Your task to perform on an android device: add a contact Image 0: 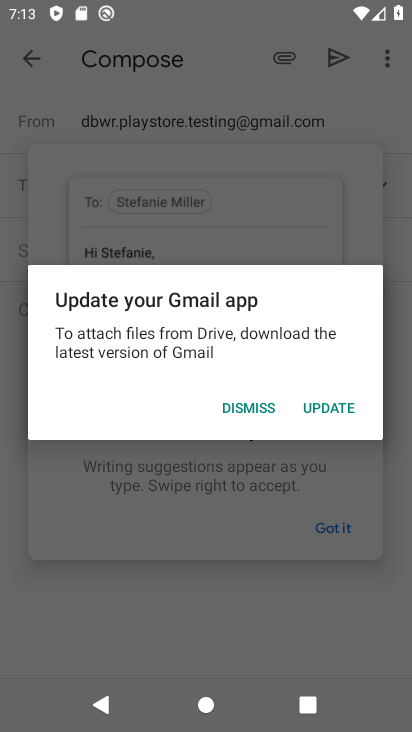
Step 0: press home button
Your task to perform on an android device: add a contact Image 1: 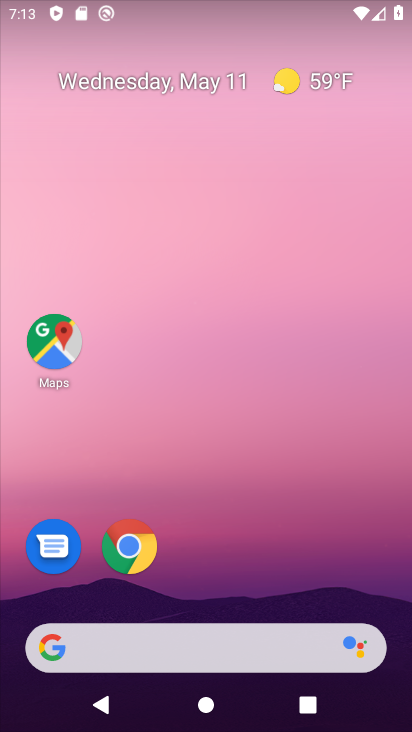
Step 1: drag from (350, 429) to (303, 123)
Your task to perform on an android device: add a contact Image 2: 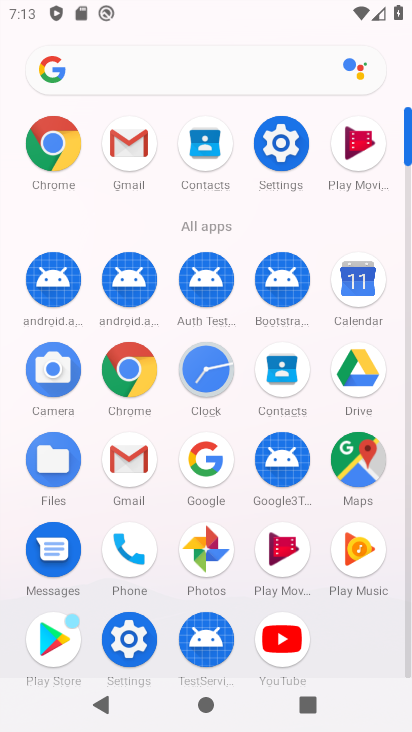
Step 2: click (281, 357)
Your task to perform on an android device: add a contact Image 3: 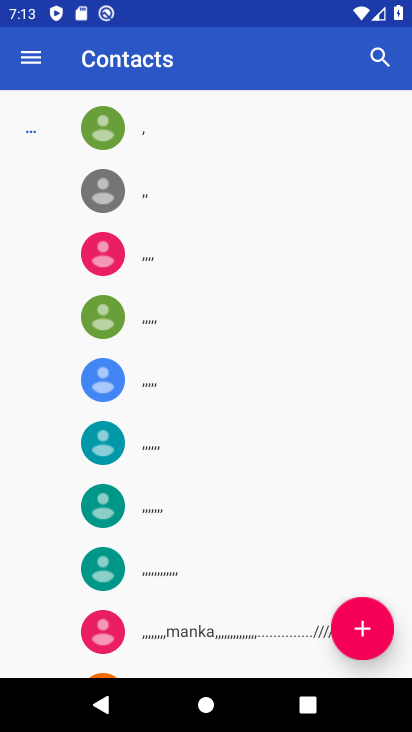
Step 3: click (365, 643)
Your task to perform on an android device: add a contact Image 4: 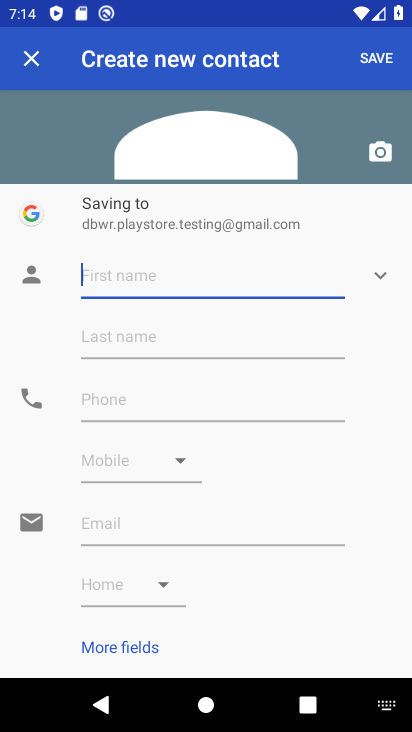
Step 4: type "fsdfdsfsf"
Your task to perform on an android device: add a contact Image 5: 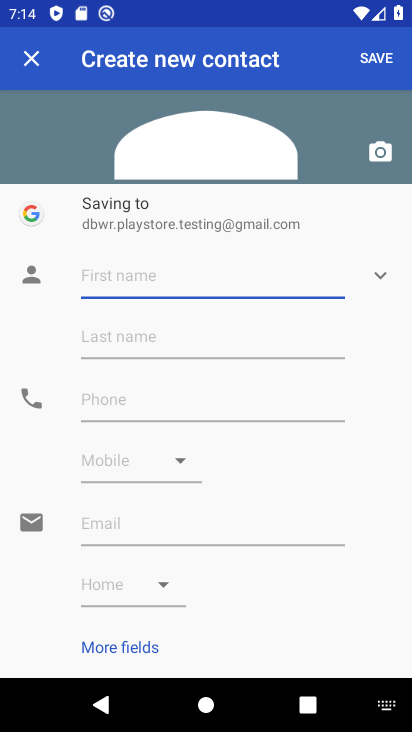
Step 5: click (179, 399)
Your task to perform on an android device: add a contact Image 6: 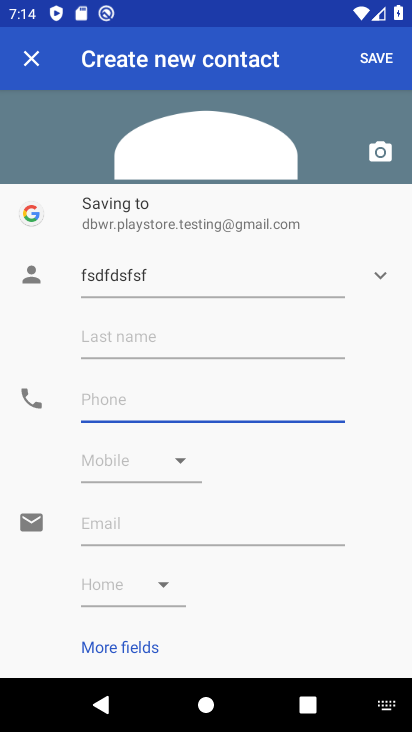
Step 6: type "5555555555"
Your task to perform on an android device: add a contact Image 7: 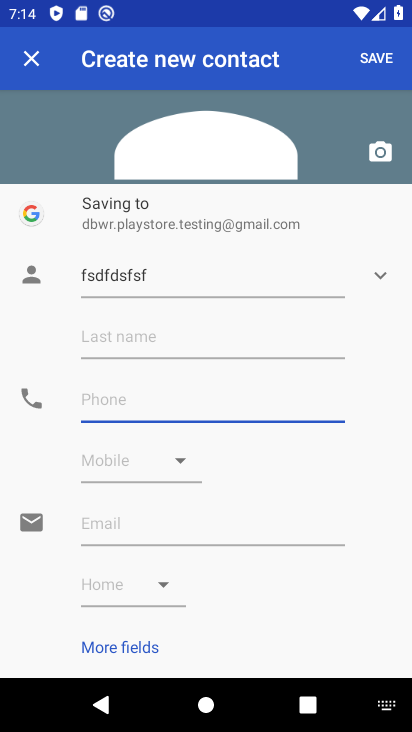
Step 7: click (389, 54)
Your task to perform on an android device: add a contact Image 8: 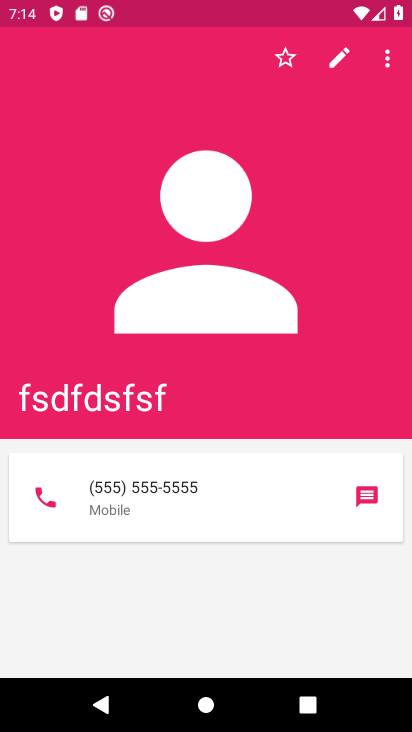
Step 8: task complete